Your task to perform on an android device: Add "panasonic triple a" to the cart on target.com Image 0: 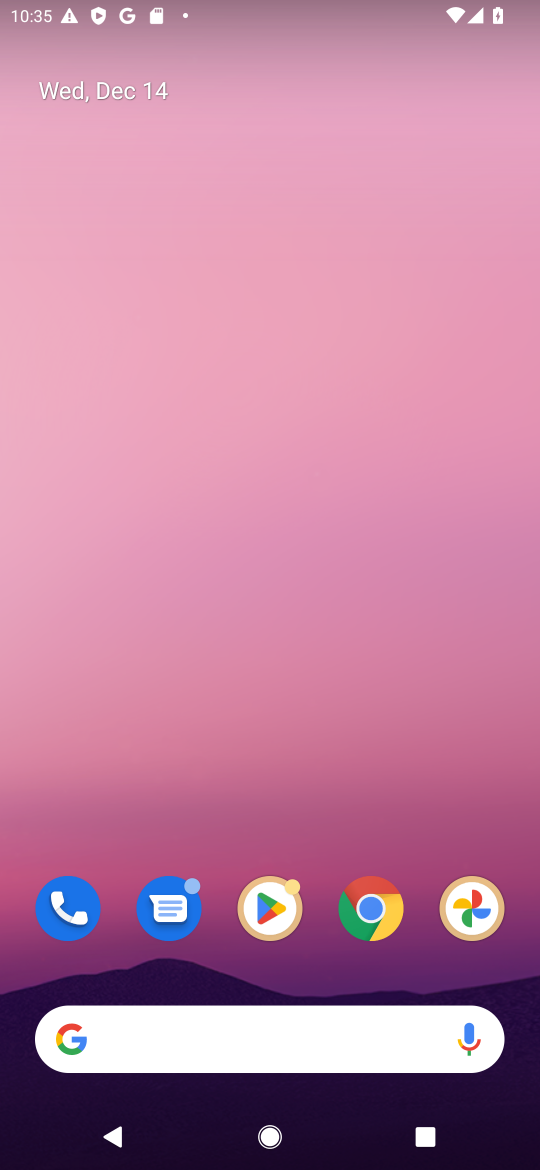
Step 0: click (259, 1038)
Your task to perform on an android device: Add "panasonic triple a" to the cart on target.com Image 1: 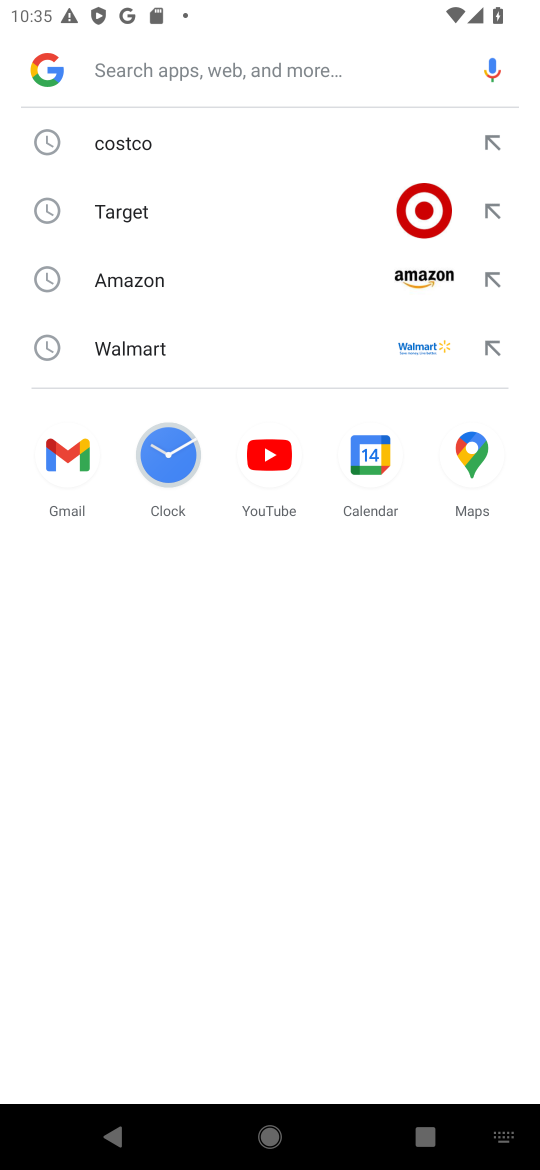
Step 1: click (225, 201)
Your task to perform on an android device: Add "panasonic triple a" to the cart on target.com Image 2: 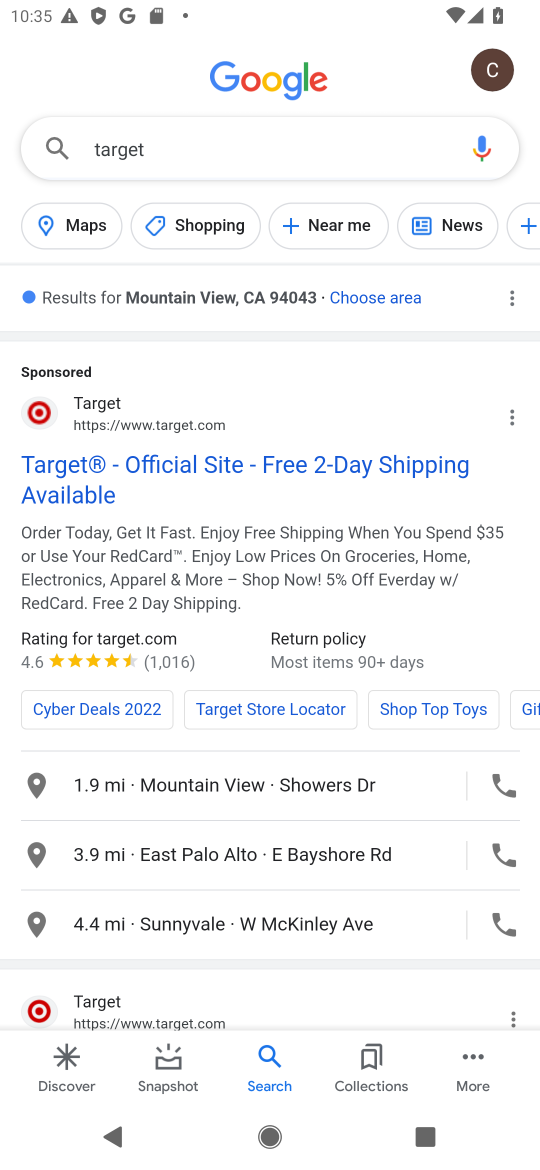
Step 2: click (164, 436)
Your task to perform on an android device: Add "panasonic triple a" to the cart on target.com Image 3: 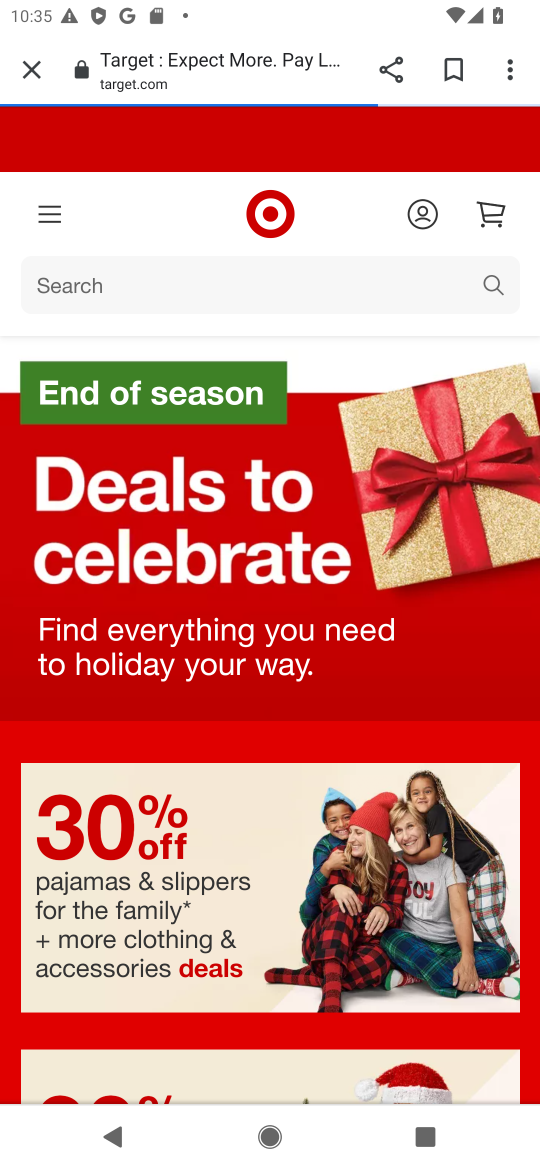
Step 3: click (241, 286)
Your task to perform on an android device: Add "panasonic triple a" to the cart on target.com Image 4: 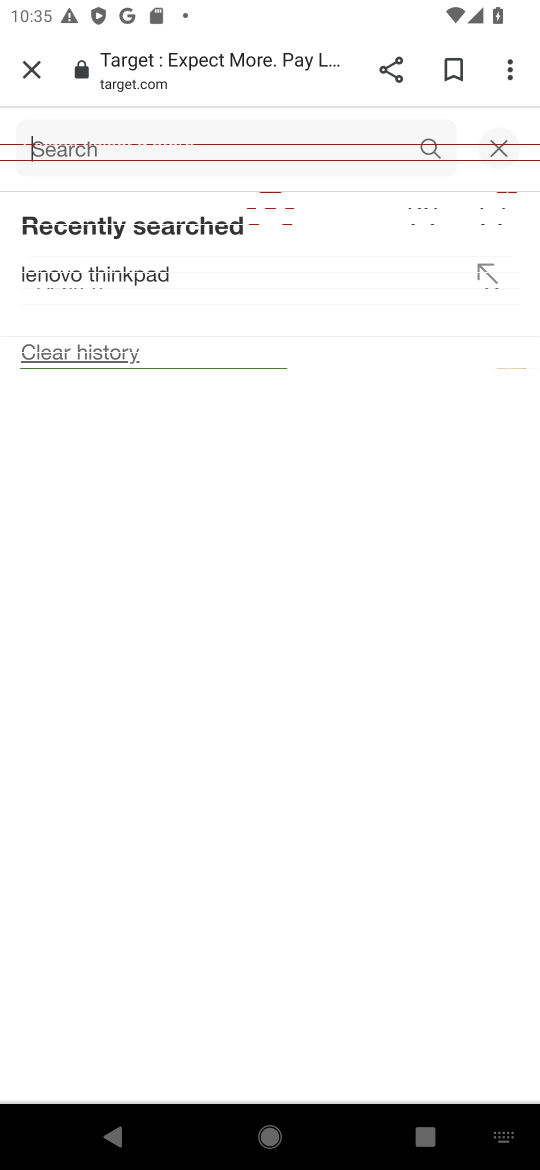
Step 4: type "panasonic triple a"
Your task to perform on an android device: Add "panasonic triple a" to the cart on target.com Image 5: 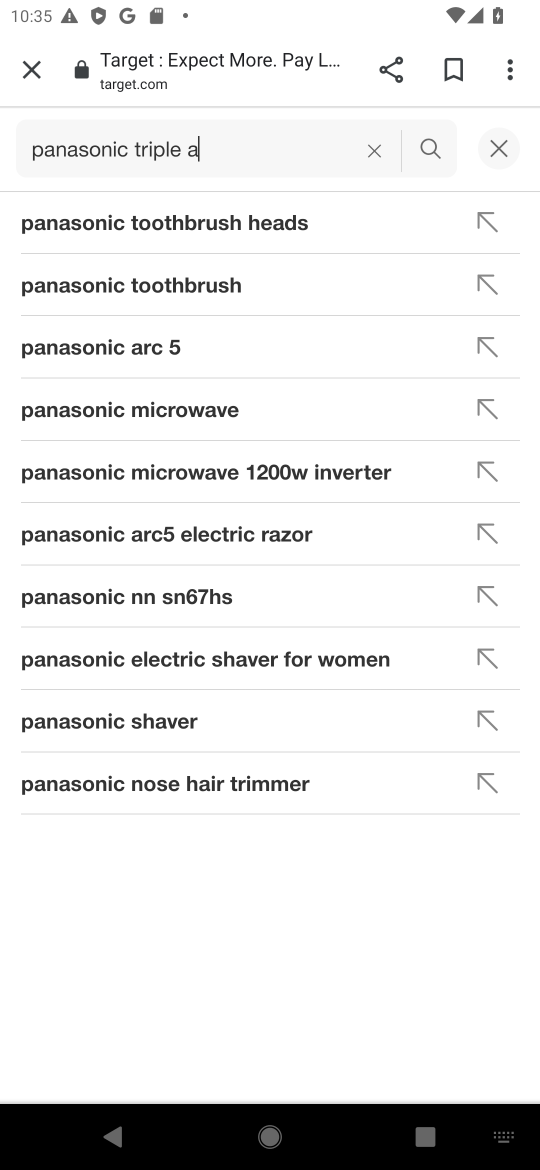
Step 5: click (420, 160)
Your task to perform on an android device: Add "panasonic triple a" to the cart on target.com Image 6: 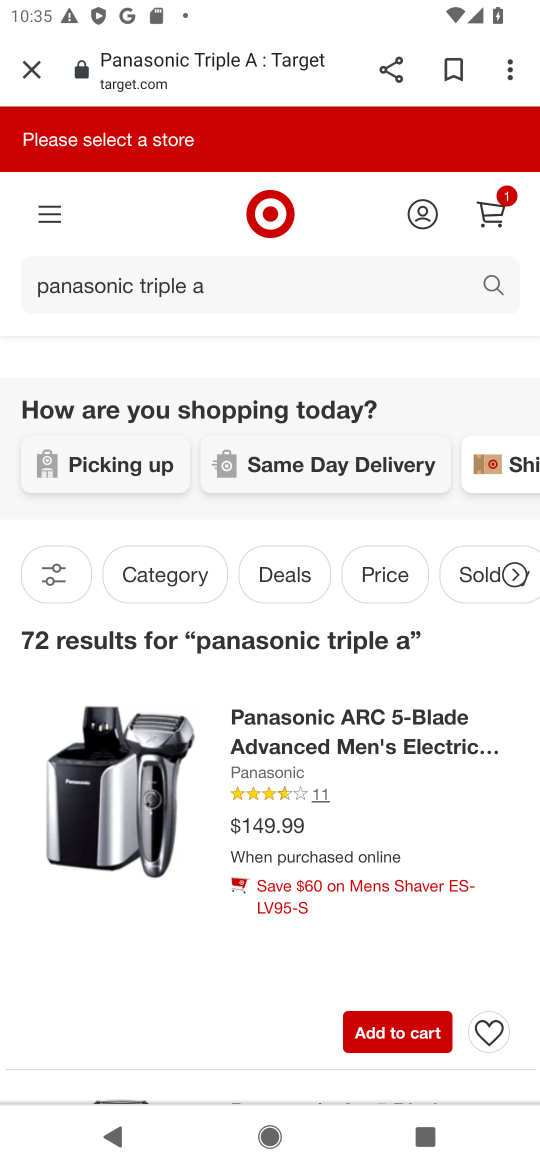
Step 6: click (391, 1035)
Your task to perform on an android device: Add "panasonic triple a" to the cart on target.com Image 7: 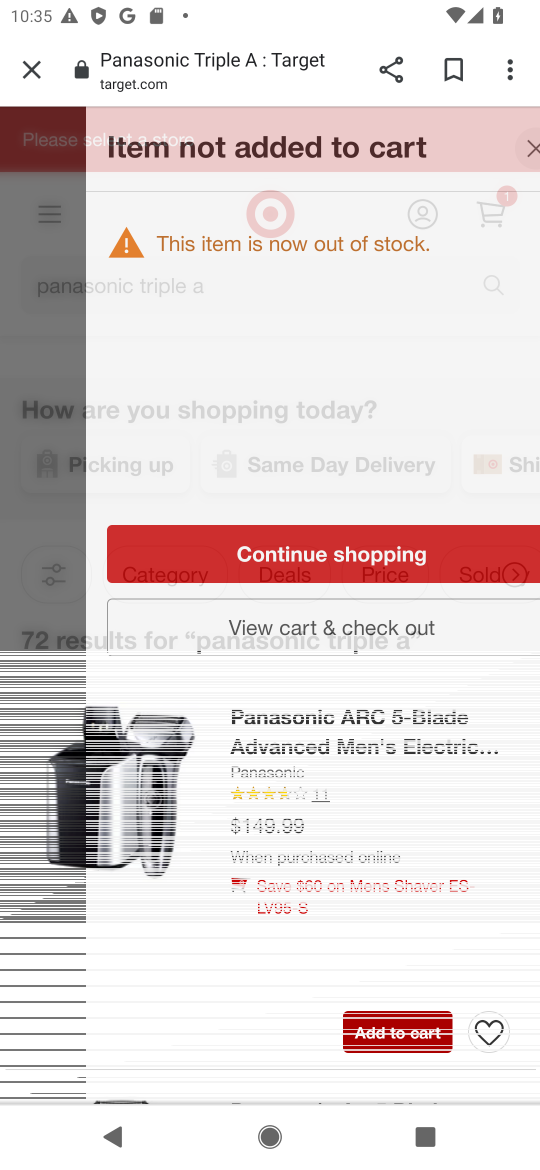
Step 7: task complete